Your task to perform on an android device: create a new album in the google photos Image 0: 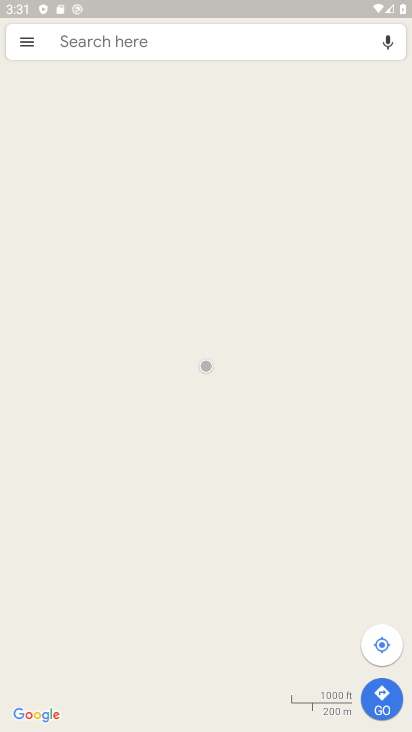
Step 0: press home button
Your task to perform on an android device: create a new album in the google photos Image 1: 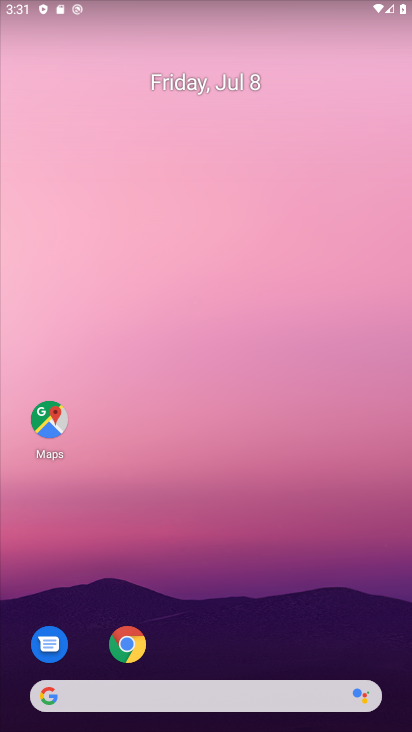
Step 1: drag from (193, 659) to (162, 204)
Your task to perform on an android device: create a new album in the google photos Image 2: 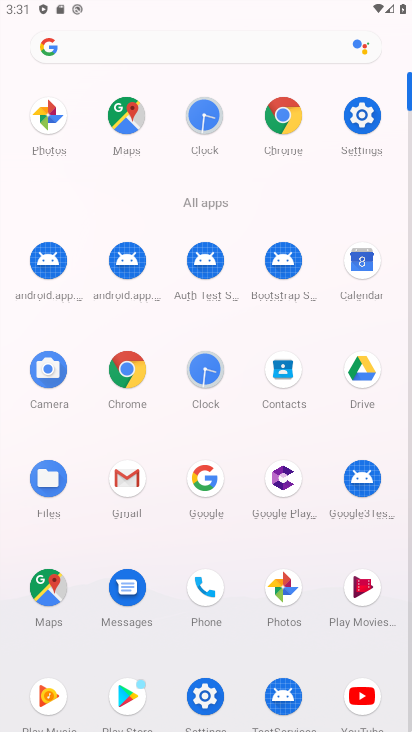
Step 2: click (290, 587)
Your task to perform on an android device: create a new album in the google photos Image 3: 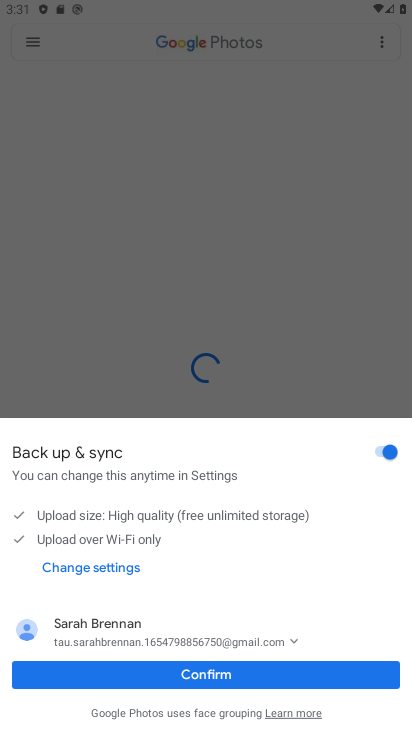
Step 3: click (164, 676)
Your task to perform on an android device: create a new album in the google photos Image 4: 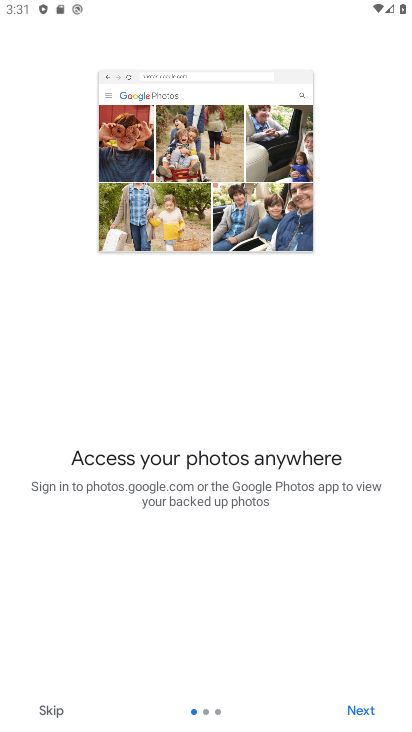
Step 4: click (372, 706)
Your task to perform on an android device: create a new album in the google photos Image 5: 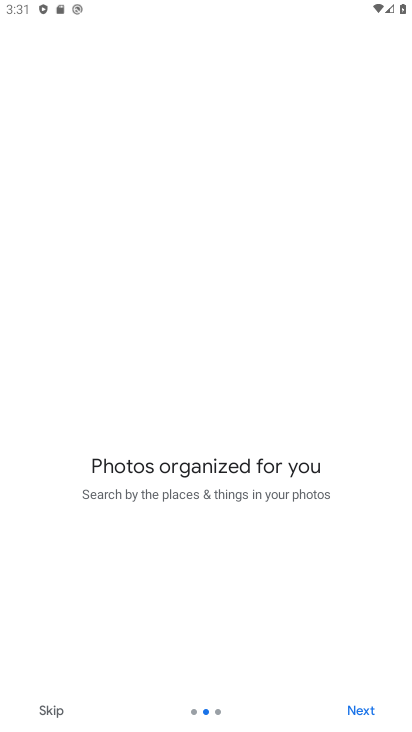
Step 5: click (372, 706)
Your task to perform on an android device: create a new album in the google photos Image 6: 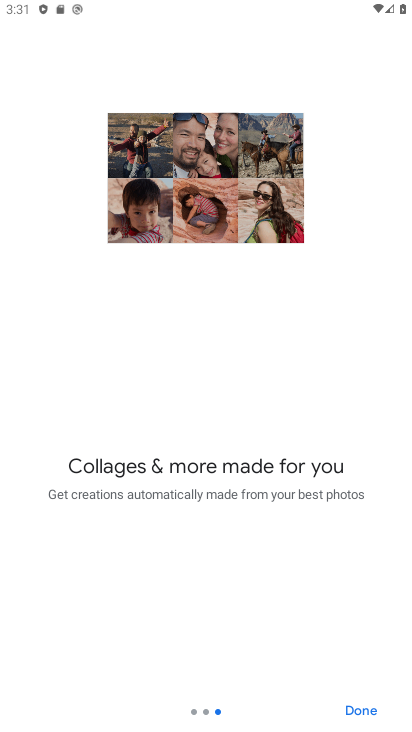
Step 6: click (372, 706)
Your task to perform on an android device: create a new album in the google photos Image 7: 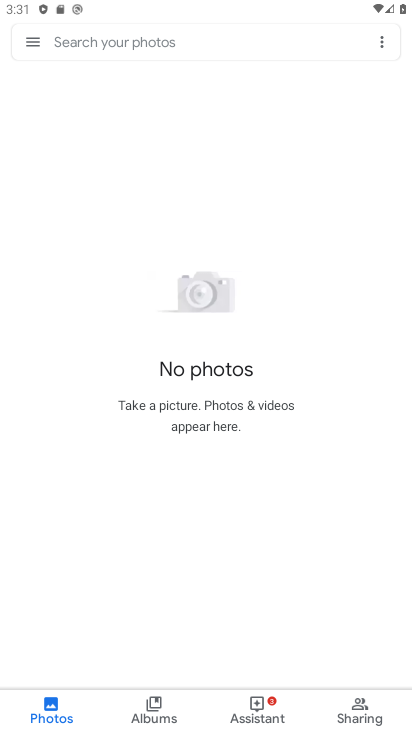
Step 7: click (31, 44)
Your task to perform on an android device: create a new album in the google photos Image 8: 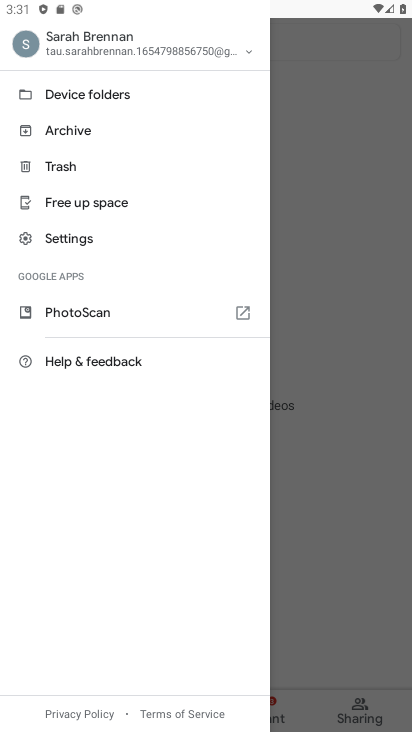
Step 8: click (334, 347)
Your task to perform on an android device: create a new album in the google photos Image 9: 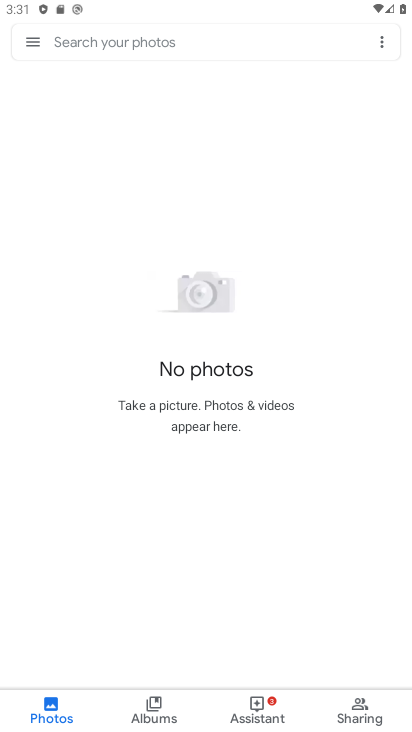
Step 9: click (167, 699)
Your task to perform on an android device: create a new album in the google photos Image 10: 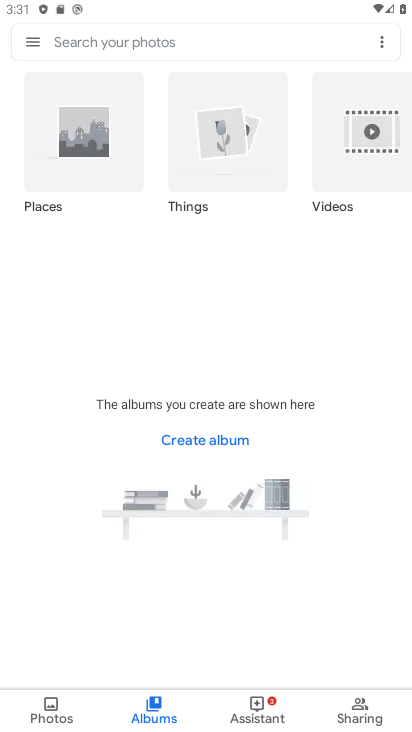
Step 10: click (203, 434)
Your task to perform on an android device: create a new album in the google photos Image 11: 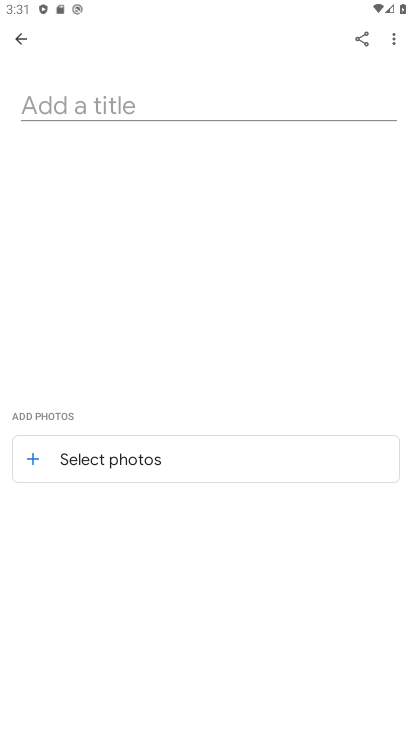
Step 11: click (138, 96)
Your task to perform on an android device: create a new album in the google photos Image 12: 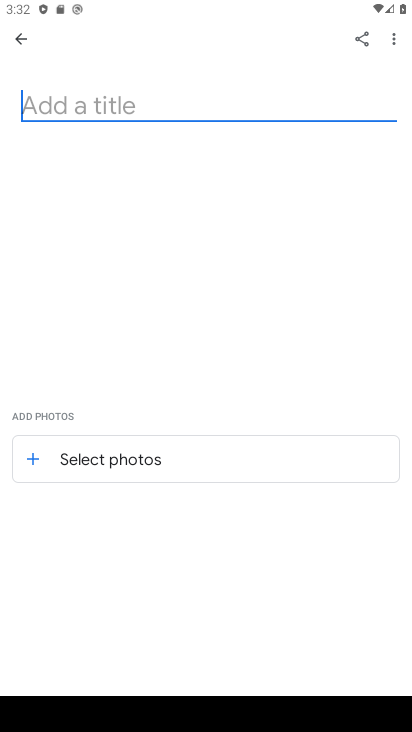
Step 12: type "ps"
Your task to perform on an android device: create a new album in the google photos Image 13: 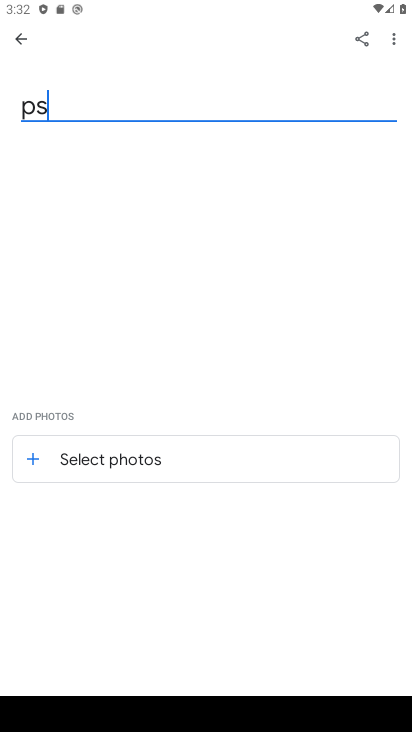
Step 13: click (153, 466)
Your task to perform on an android device: create a new album in the google photos Image 14: 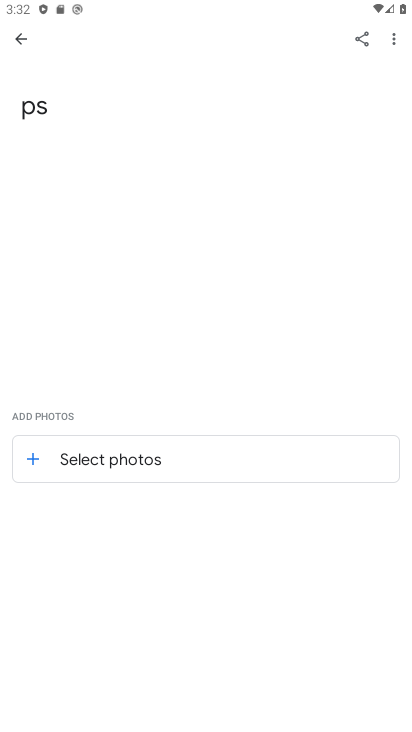
Step 14: click (31, 457)
Your task to perform on an android device: create a new album in the google photos Image 15: 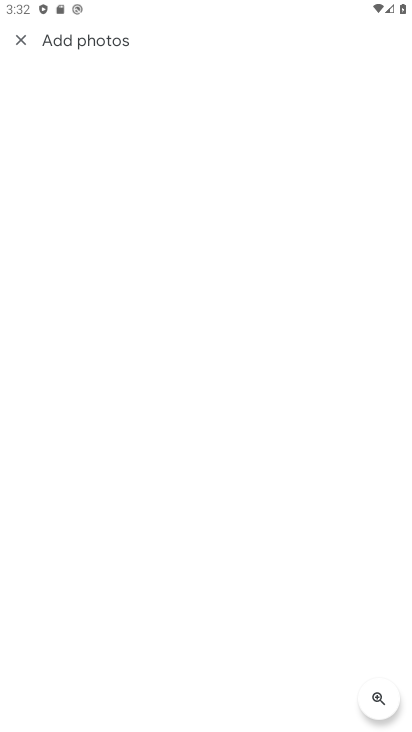
Step 15: click (149, 219)
Your task to perform on an android device: create a new album in the google photos Image 16: 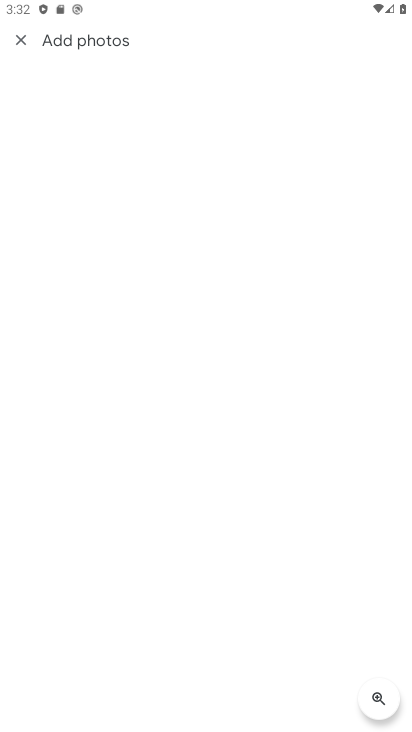
Step 16: click (20, 41)
Your task to perform on an android device: create a new album in the google photos Image 17: 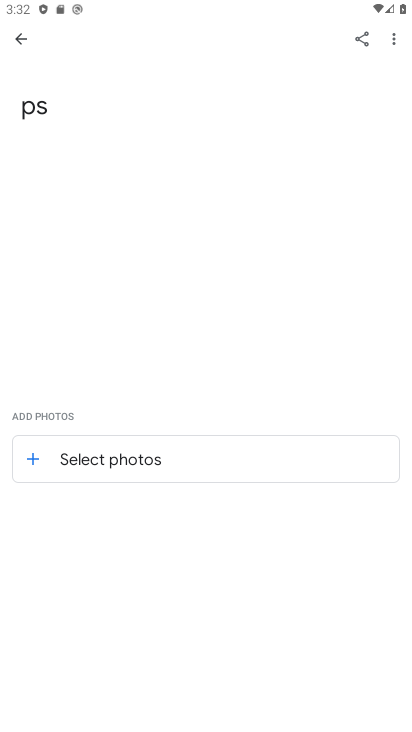
Step 17: click (396, 37)
Your task to perform on an android device: create a new album in the google photos Image 18: 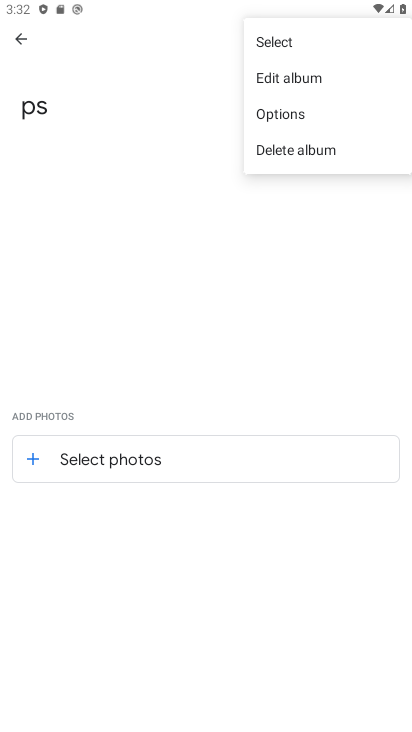
Step 18: click (141, 145)
Your task to perform on an android device: create a new album in the google photos Image 19: 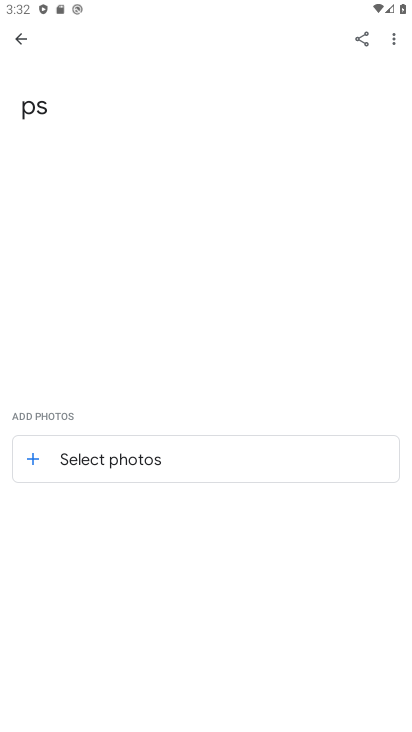
Step 19: click (18, 41)
Your task to perform on an android device: create a new album in the google photos Image 20: 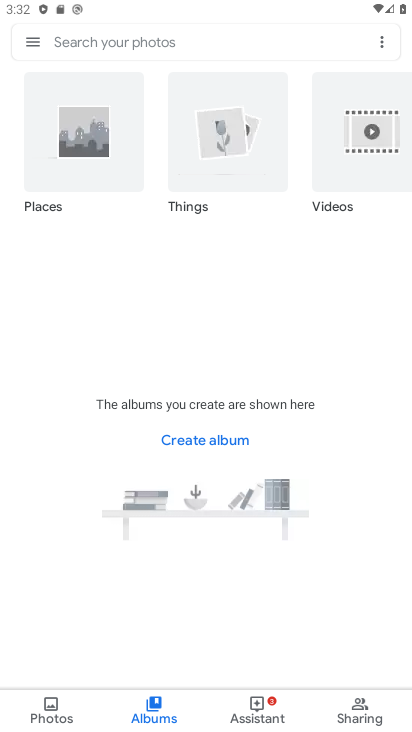
Step 20: task complete